Your task to perform on an android device: clear all cookies in the chrome app Image 0: 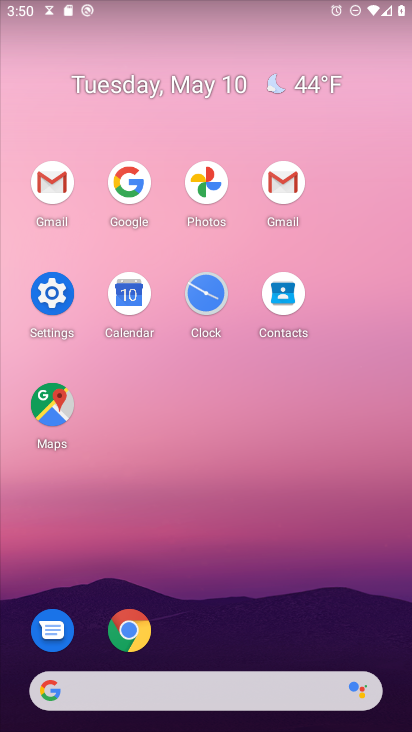
Step 0: click (127, 619)
Your task to perform on an android device: clear all cookies in the chrome app Image 1: 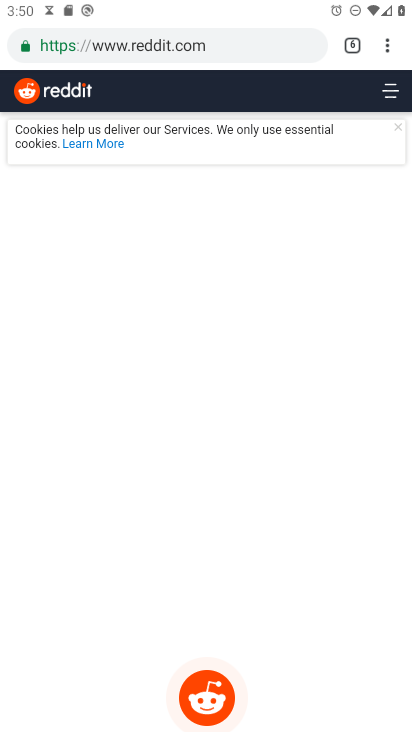
Step 1: click (388, 55)
Your task to perform on an android device: clear all cookies in the chrome app Image 2: 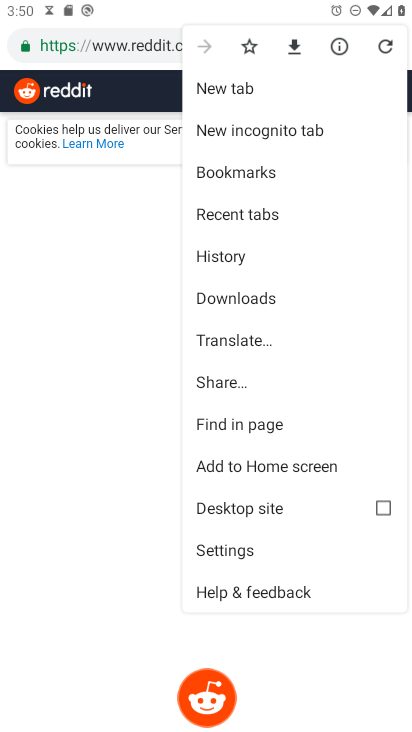
Step 2: click (259, 546)
Your task to perform on an android device: clear all cookies in the chrome app Image 3: 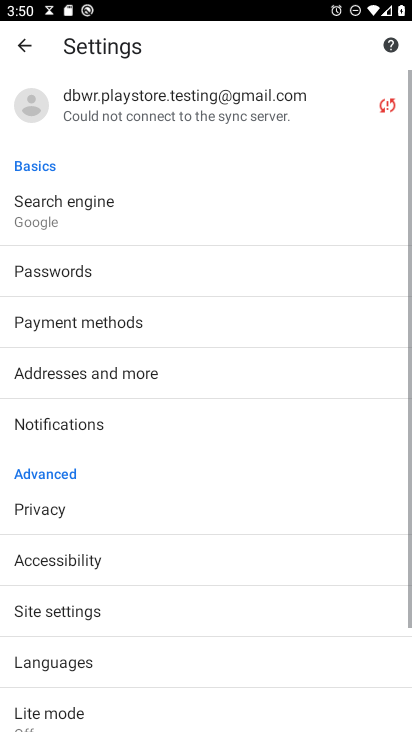
Step 3: drag from (146, 651) to (179, 287)
Your task to perform on an android device: clear all cookies in the chrome app Image 4: 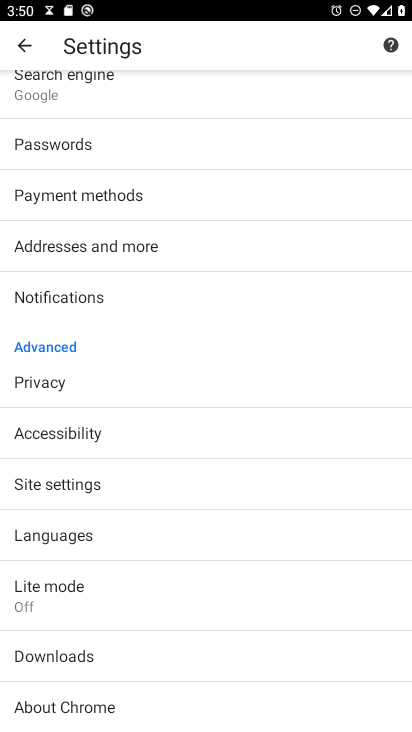
Step 4: click (85, 367)
Your task to perform on an android device: clear all cookies in the chrome app Image 5: 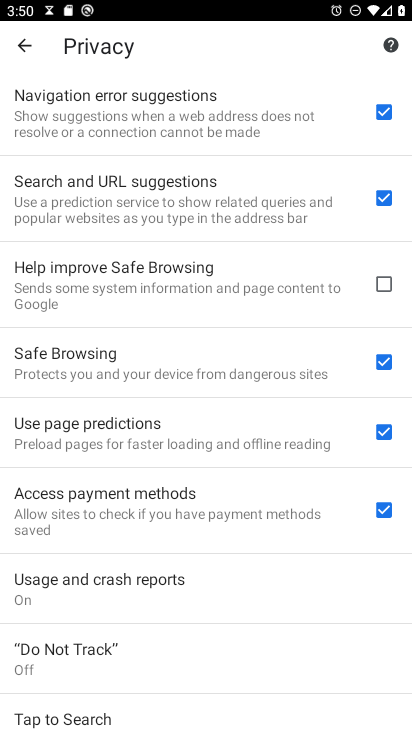
Step 5: drag from (230, 623) to (231, 127)
Your task to perform on an android device: clear all cookies in the chrome app Image 6: 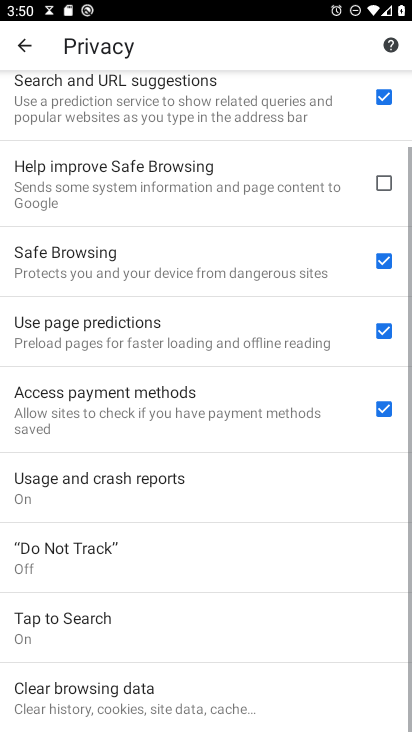
Step 6: drag from (224, 574) to (209, 208)
Your task to perform on an android device: clear all cookies in the chrome app Image 7: 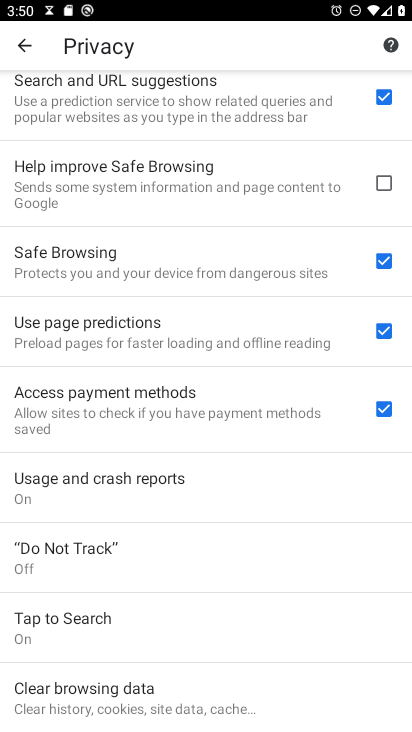
Step 7: click (169, 706)
Your task to perform on an android device: clear all cookies in the chrome app Image 8: 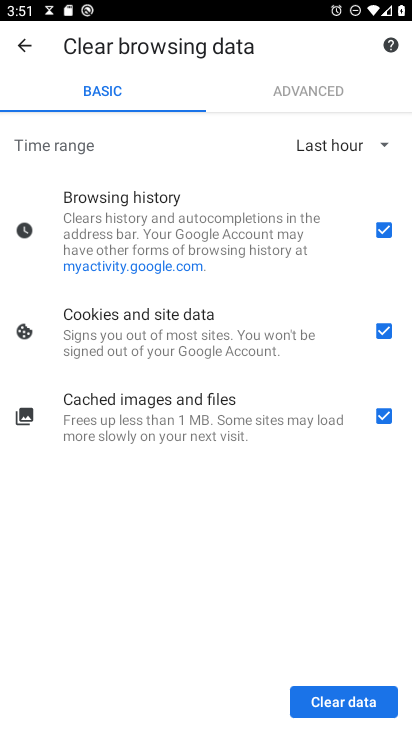
Step 8: click (353, 708)
Your task to perform on an android device: clear all cookies in the chrome app Image 9: 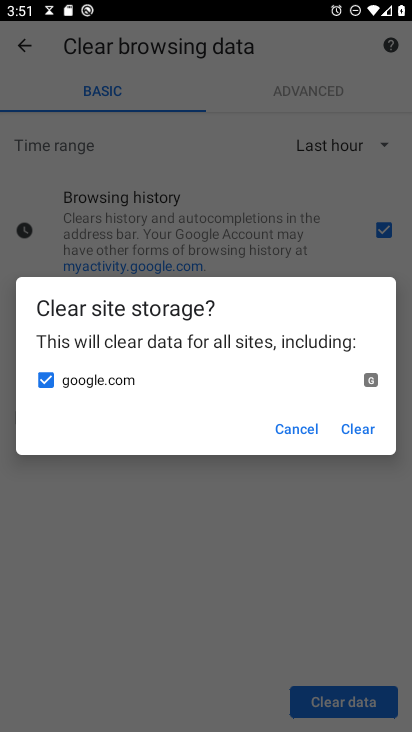
Step 9: click (358, 434)
Your task to perform on an android device: clear all cookies in the chrome app Image 10: 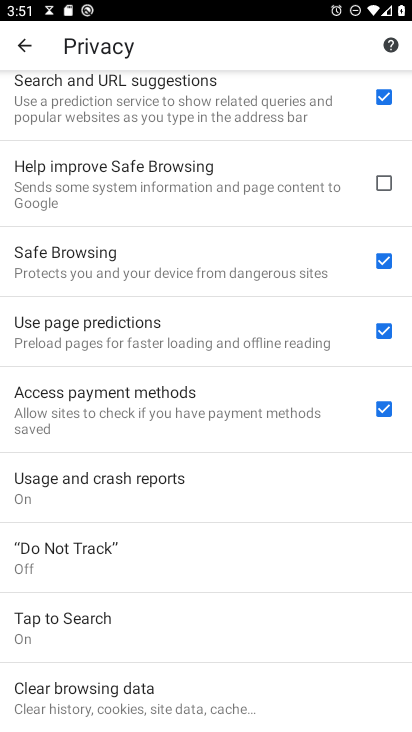
Step 10: task complete